Your task to perform on an android device: change keyboard looks Image 0: 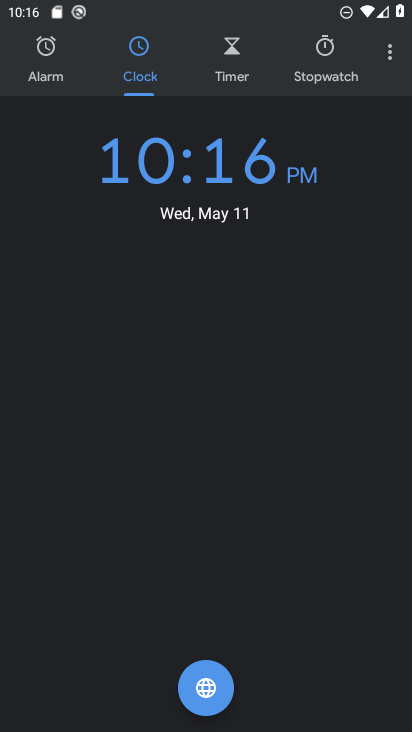
Step 0: press back button
Your task to perform on an android device: change keyboard looks Image 1: 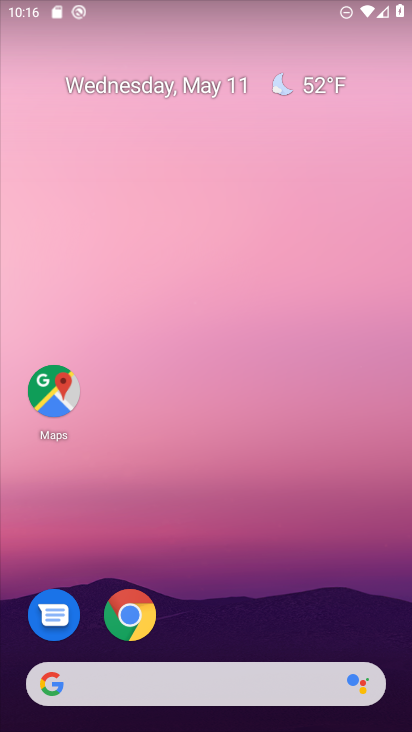
Step 1: drag from (247, 610) to (225, 115)
Your task to perform on an android device: change keyboard looks Image 2: 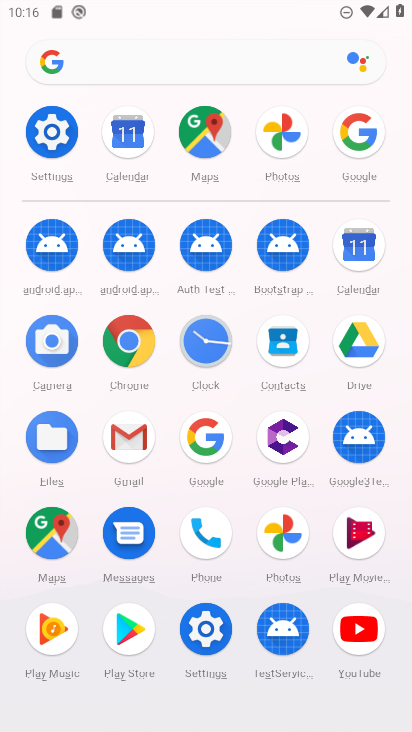
Step 2: click (51, 130)
Your task to perform on an android device: change keyboard looks Image 3: 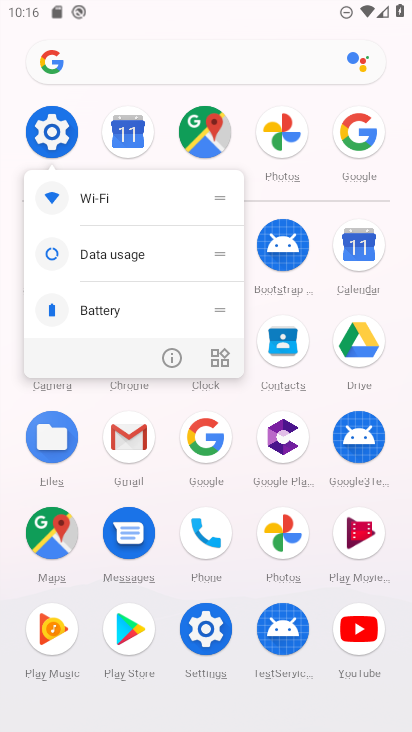
Step 3: click (51, 131)
Your task to perform on an android device: change keyboard looks Image 4: 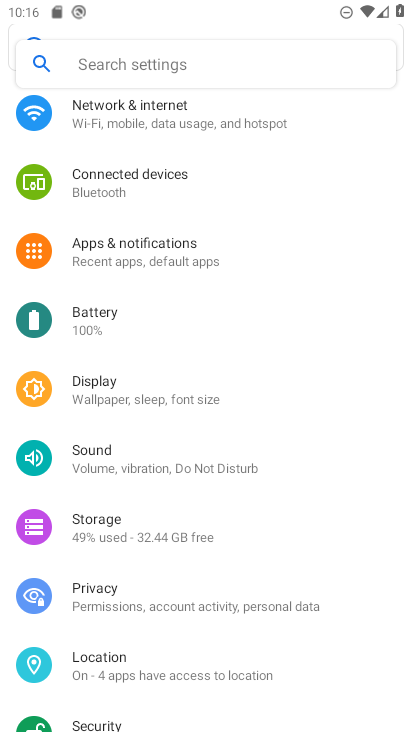
Step 4: drag from (150, 507) to (177, 436)
Your task to perform on an android device: change keyboard looks Image 5: 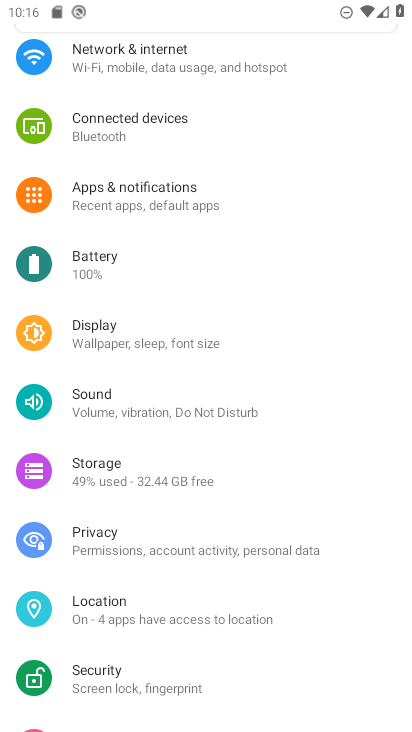
Step 5: drag from (121, 584) to (158, 494)
Your task to perform on an android device: change keyboard looks Image 6: 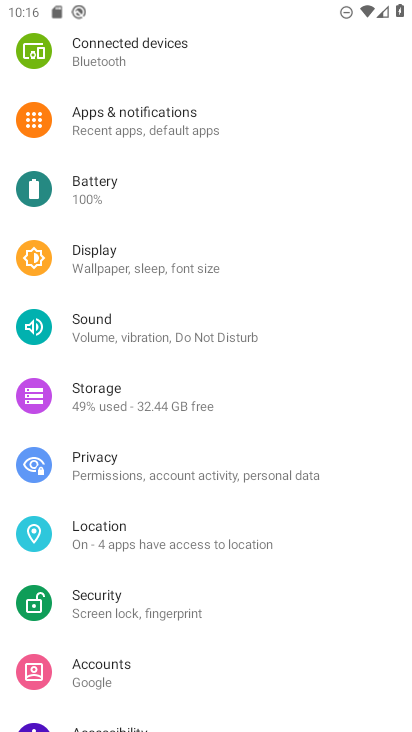
Step 6: drag from (96, 633) to (153, 545)
Your task to perform on an android device: change keyboard looks Image 7: 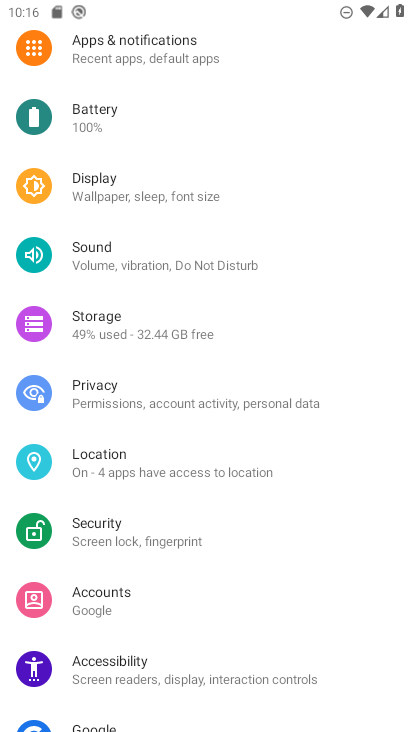
Step 7: drag from (72, 637) to (166, 532)
Your task to perform on an android device: change keyboard looks Image 8: 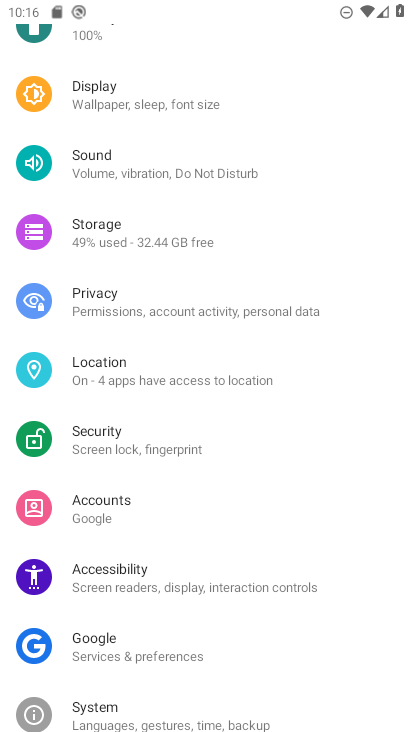
Step 8: drag from (95, 665) to (171, 548)
Your task to perform on an android device: change keyboard looks Image 9: 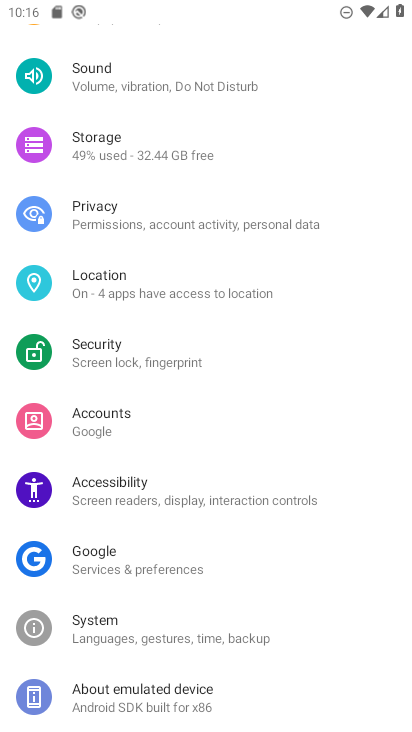
Step 9: click (97, 632)
Your task to perform on an android device: change keyboard looks Image 10: 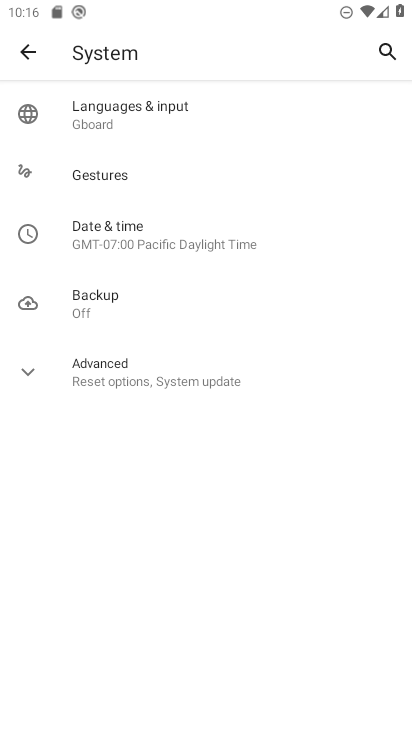
Step 10: click (113, 111)
Your task to perform on an android device: change keyboard looks Image 11: 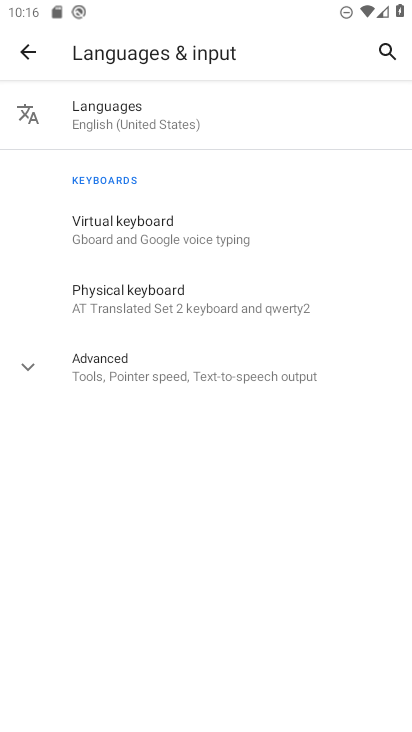
Step 11: click (110, 226)
Your task to perform on an android device: change keyboard looks Image 12: 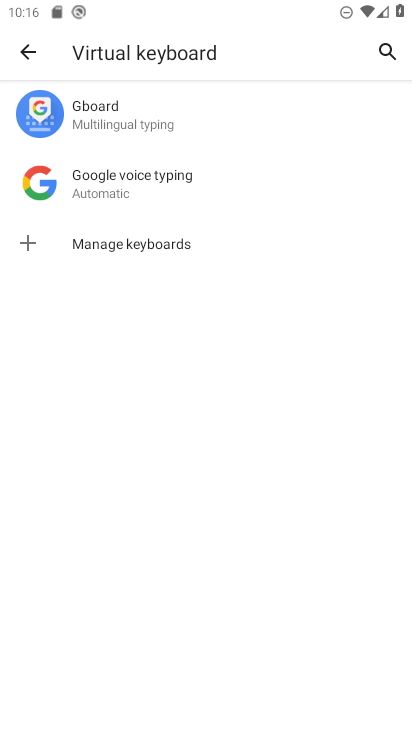
Step 12: click (87, 117)
Your task to perform on an android device: change keyboard looks Image 13: 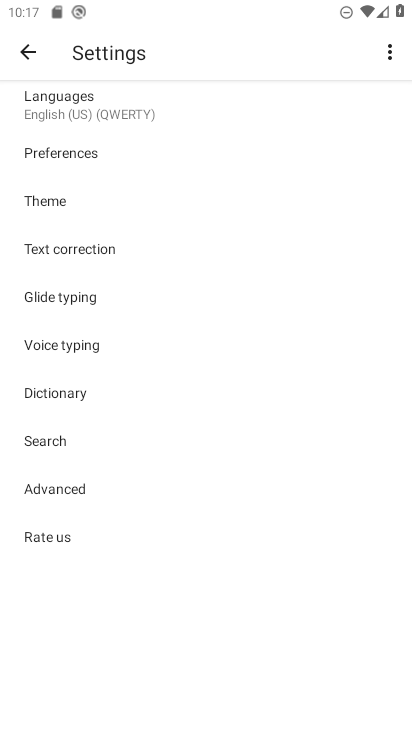
Step 13: click (39, 202)
Your task to perform on an android device: change keyboard looks Image 14: 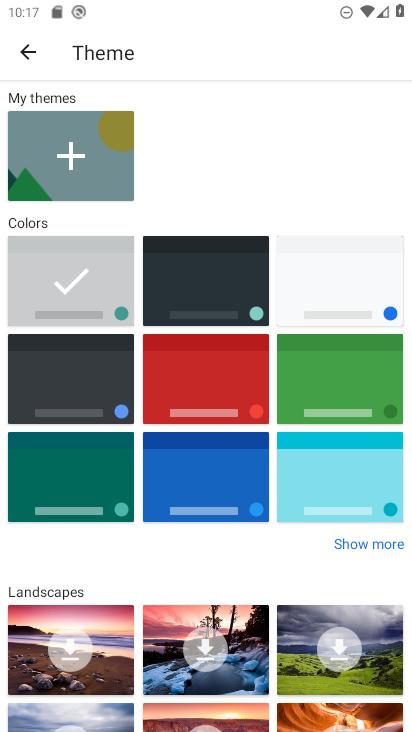
Step 14: click (221, 393)
Your task to perform on an android device: change keyboard looks Image 15: 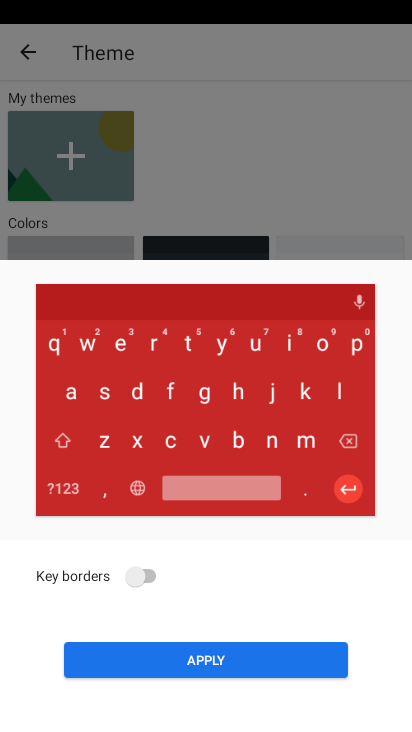
Step 15: click (136, 578)
Your task to perform on an android device: change keyboard looks Image 16: 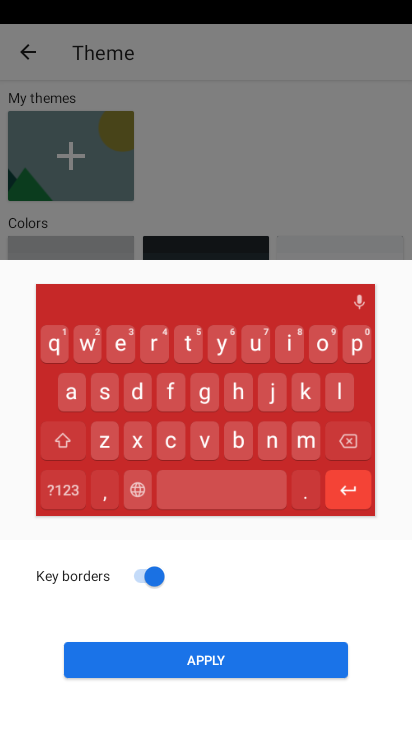
Step 16: click (212, 656)
Your task to perform on an android device: change keyboard looks Image 17: 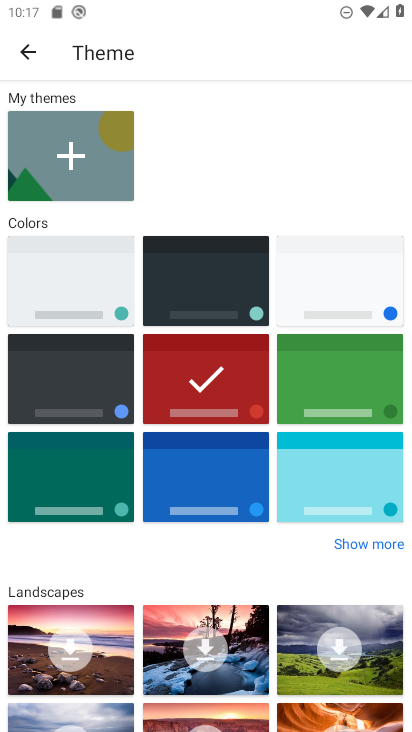
Step 17: task complete